Your task to perform on an android device: change notification settings in the gmail app Image 0: 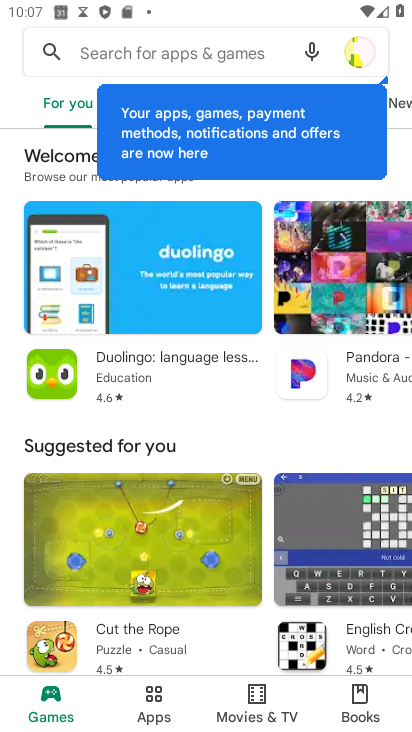
Step 0: press home button
Your task to perform on an android device: change notification settings in the gmail app Image 1: 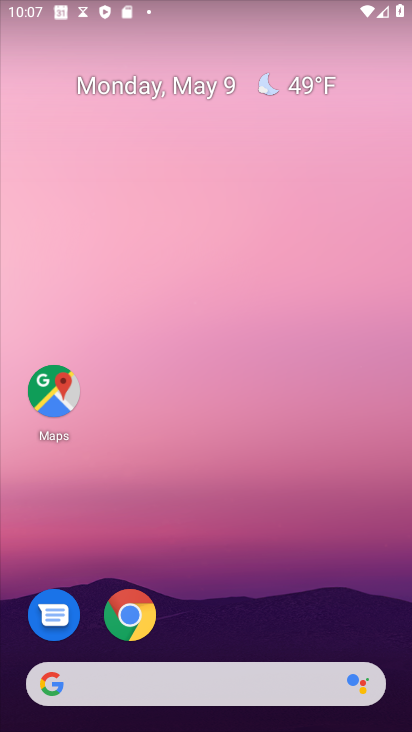
Step 1: drag from (210, 610) to (210, 114)
Your task to perform on an android device: change notification settings in the gmail app Image 2: 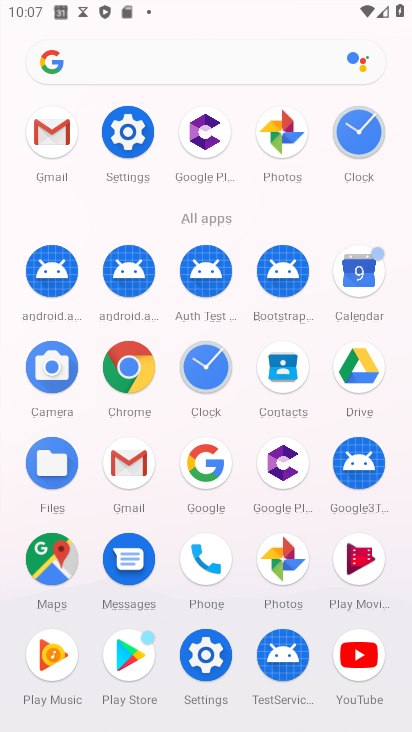
Step 2: click (141, 126)
Your task to perform on an android device: change notification settings in the gmail app Image 3: 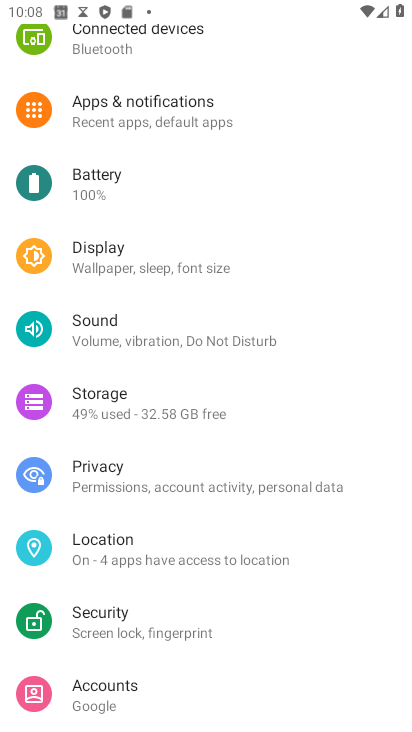
Step 3: drag from (225, 135) to (238, 566)
Your task to perform on an android device: change notification settings in the gmail app Image 4: 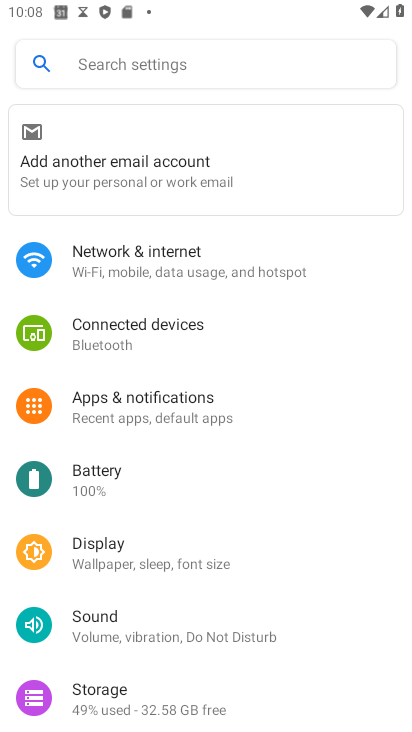
Step 4: press home button
Your task to perform on an android device: change notification settings in the gmail app Image 5: 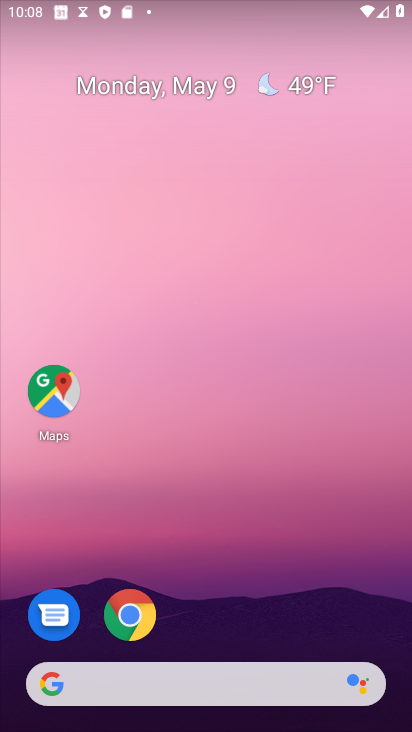
Step 5: drag from (177, 553) to (211, 253)
Your task to perform on an android device: change notification settings in the gmail app Image 6: 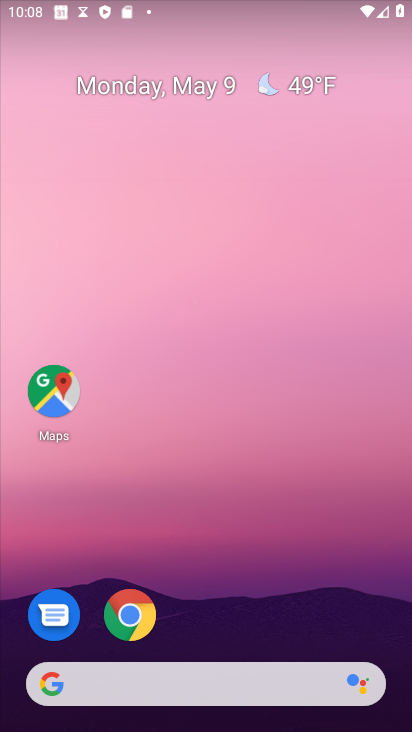
Step 6: drag from (249, 450) to (269, 98)
Your task to perform on an android device: change notification settings in the gmail app Image 7: 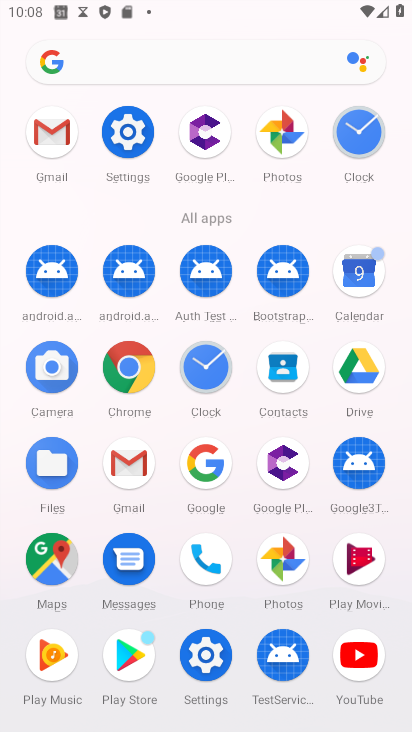
Step 7: click (132, 472)
Your task to perform on an android device: change notification settings in the gmail app Image 8: 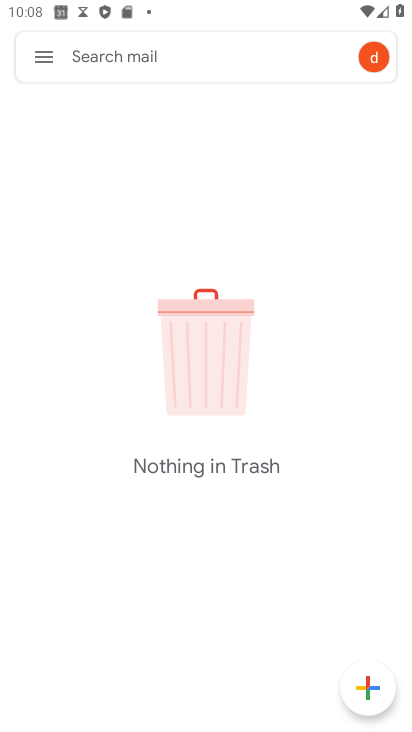
Step 8: click (46, 53)
Your task to perform on an android device: change notification settings in the gmail app Image 9: 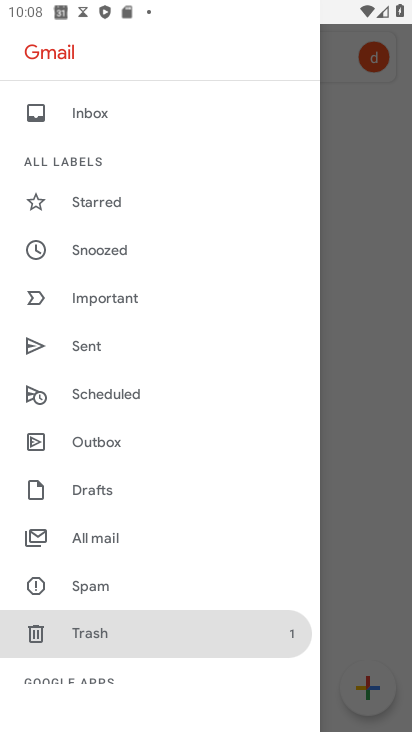
Step 9: drag from (108, 667) to (131, 278)
Your task to perform on an android device: change notification settings in the gmail app Image 10: 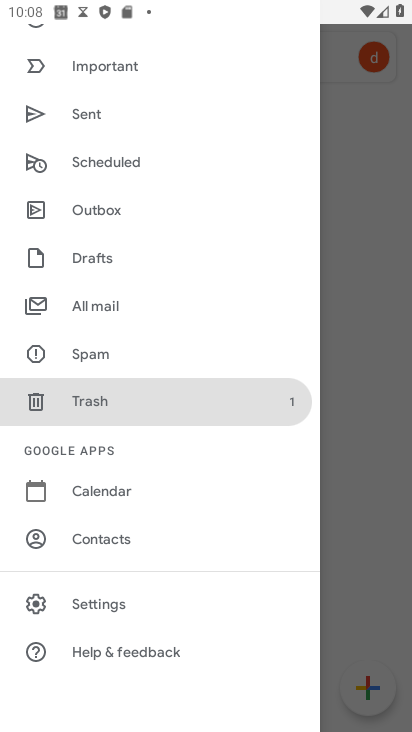
Step 10: click (132, 604)
Your task to perform on an android device: change notification settings in the gmail app Image 11: 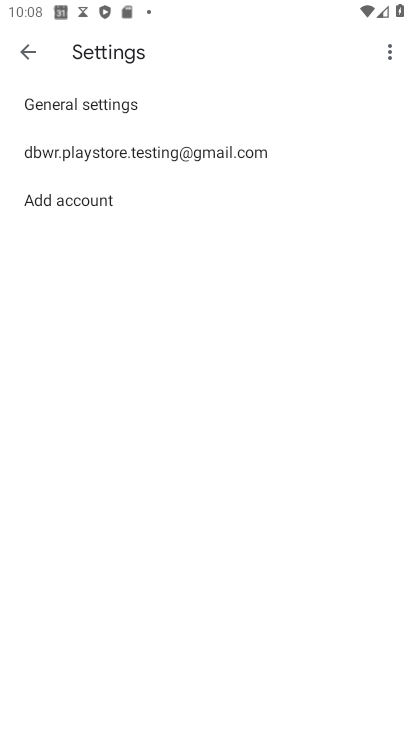
Step 11: click (168, 160)
Your task to perform on an android device: change notification settings in the gmail app Image 12: 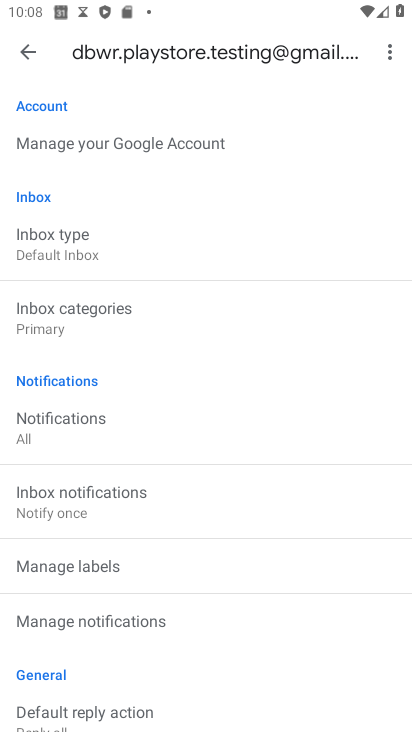
Step 12: click (96, 431)
Your task to perform on an android device: change notification settings in the gmail app Image 13: 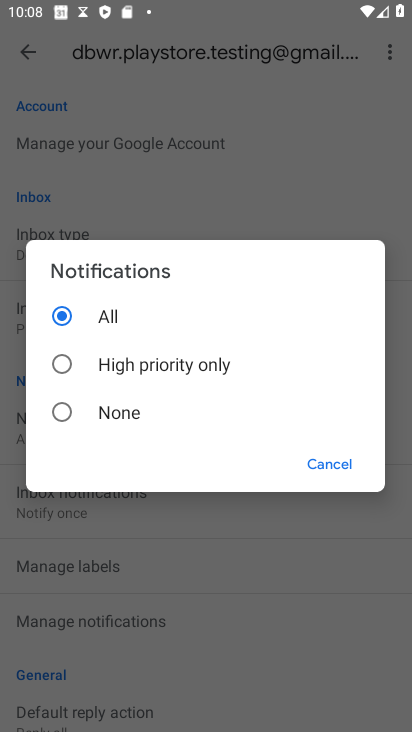
Step 13: click (154, 367)
Your task to perform on an android device: change notification settings in the gmail app Image 14: 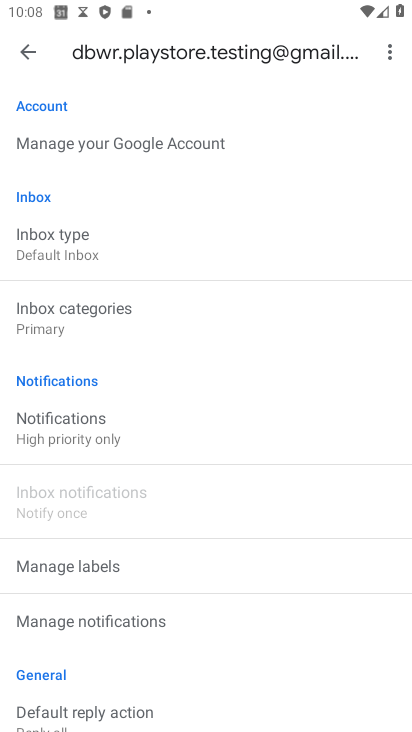
Step 14: task complete